Your task to perform on an android device: toggle wifi Image 0: 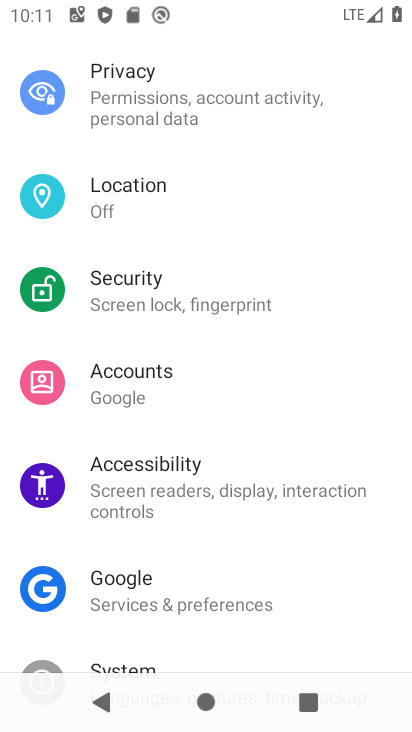
Step 0: drag from (340, 276) to (324, 598)
Your task to perform on an android device: toggle wifi Image 1: 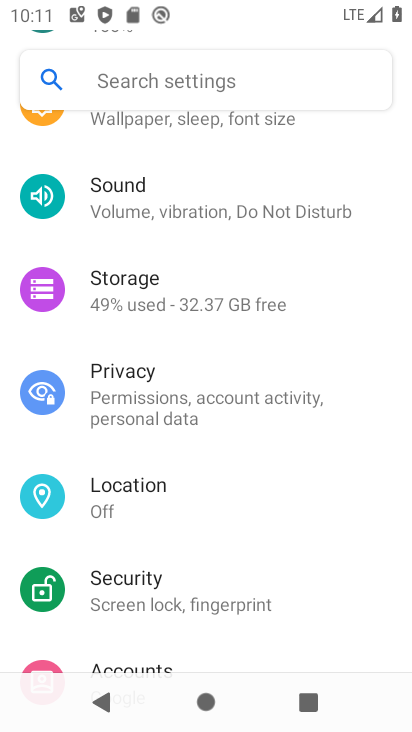
Step 1: drag from (319, 276) to (292, 610)
Your task to perform on an android device: toggle wifi Image 2: 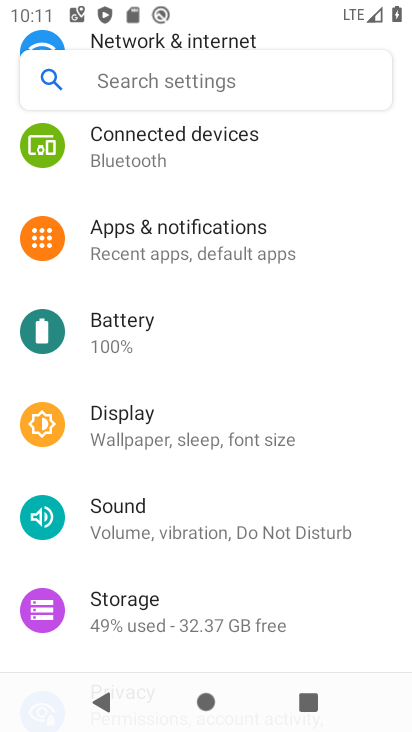
Step 2: drag from (333, 228) to (284, 621)
Your task to perform on an android device: toggle wifi Image 3: 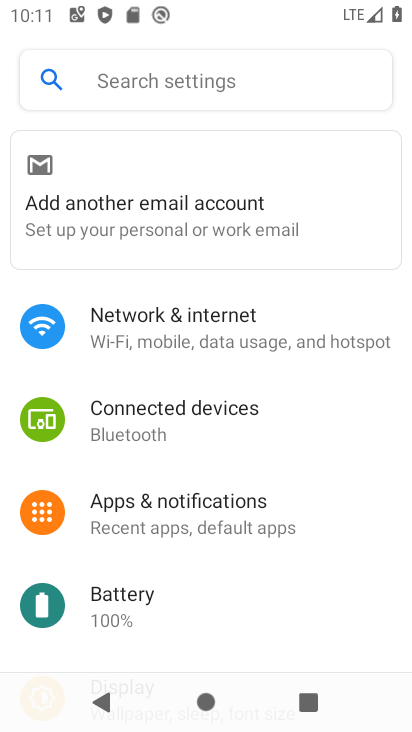
Step 3: click (140, 332)
Your task to perform on an android device: toggle wifi Image 4: 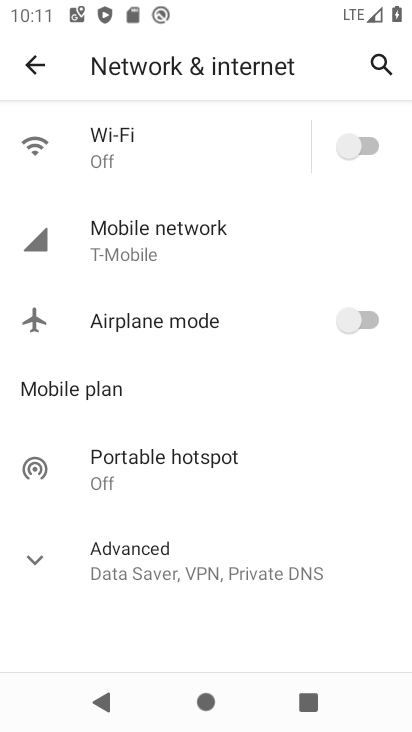
Step 4: click (354, 145)
Your task to perform on an android device: toggle wifi Image 5: 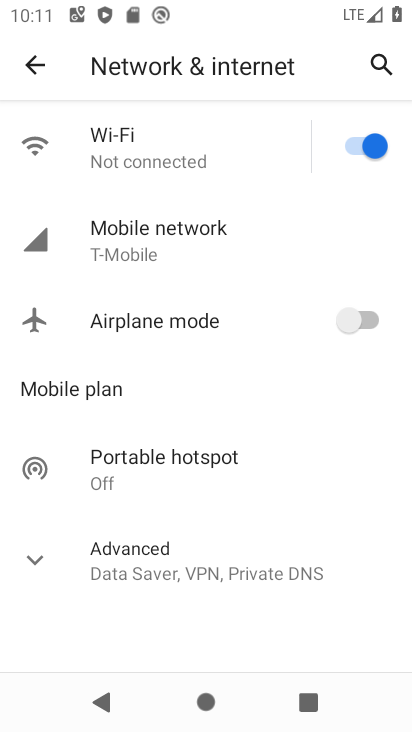
Step 5: task complete